Your task to perform on an android device: What's the price of the 2x4x8 boards at Home Depot? Image 0: 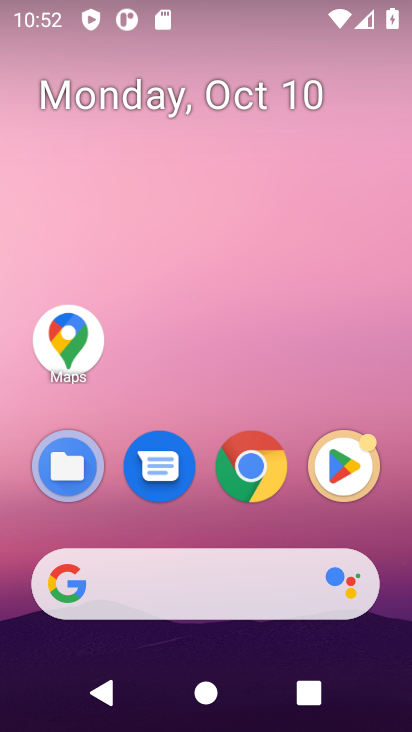
Step 0: press home button
Your task to perform on an android device: What's the price of the 2x4x8 boards at Home Depot? Image 1: 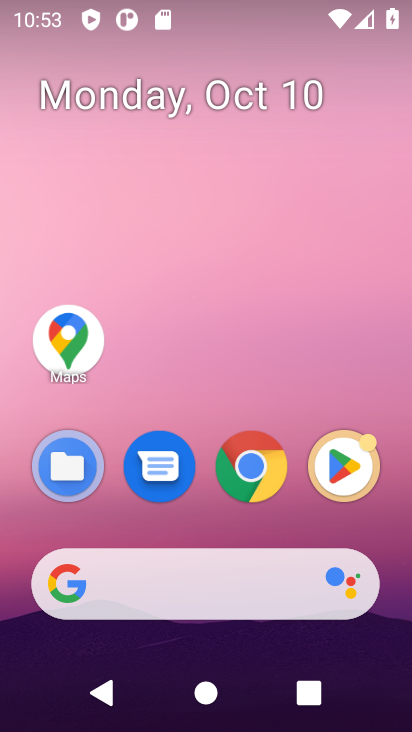
Step 1: click (66, 590)
Your task to perform on an android device: What's the price of the 2x4x8 boards at Home Depot? Image 2: 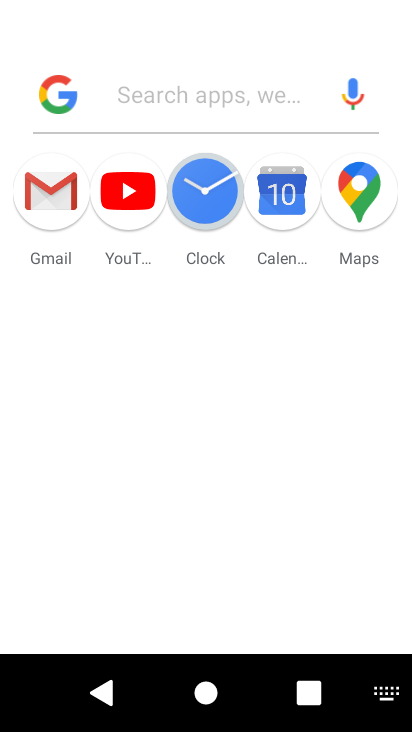
Step 2: type "price of the 2x4x8 boards at Home Depot"
Your task to perform on an android device: What's the price of the 2x4x8 boards at Home Depot? Image 3: 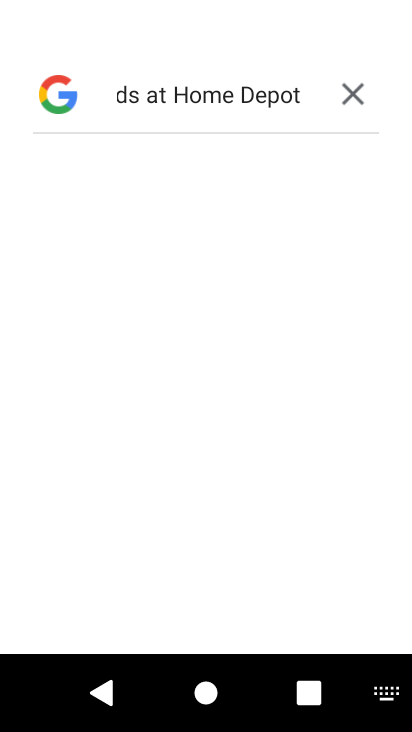
Step 3: press enter
Your task to perform on an android device: What's the price of the 2x4x8 boards at Home Depot? Image 4: 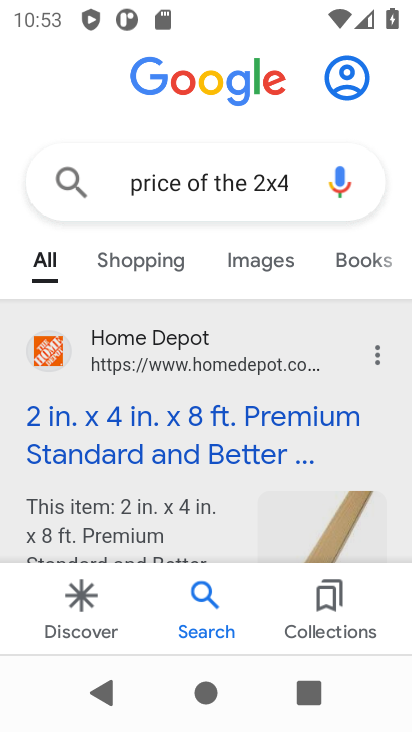
Step 4: task complete